Your task to perform on an android device: Do I have any events this weekend? Image 0: 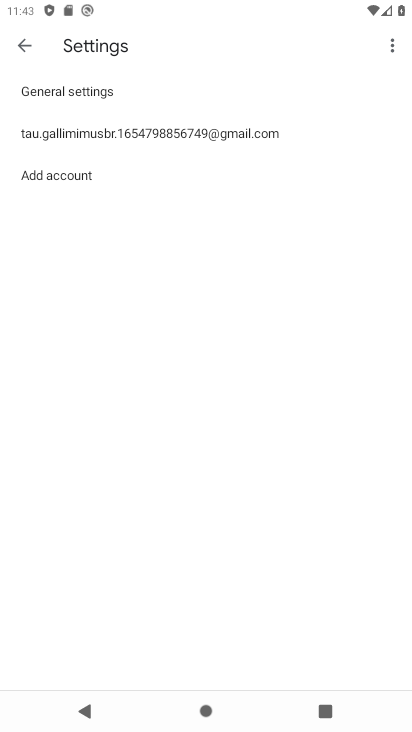
Step 0: press home button
Your task to perform on an android device: Do I have any events this weekend? Image 1: 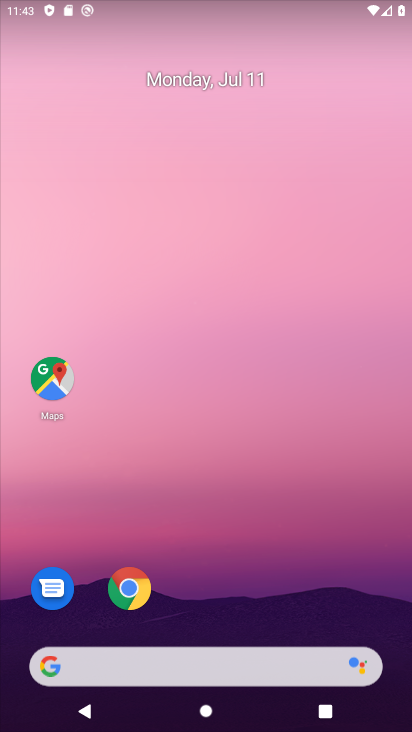
Step 1: drag from (235, 571) to (113, 104)
Your task to perform on an android device: Do I have any events this weekend? Image 2: 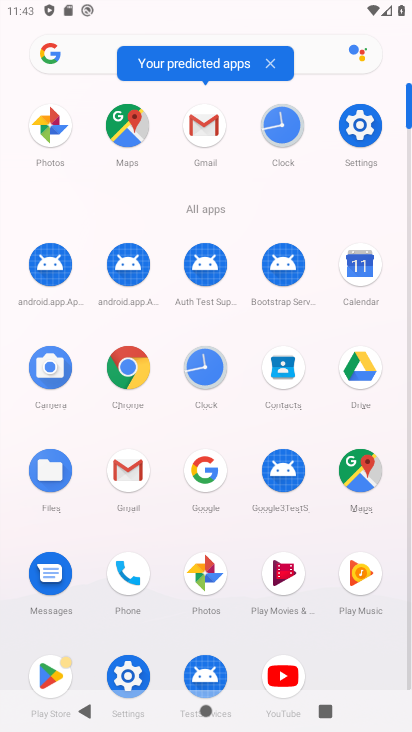
Step 2: click (356, 268)
Your task to perform on an android device: Do I have any events this weekend? Image 3: 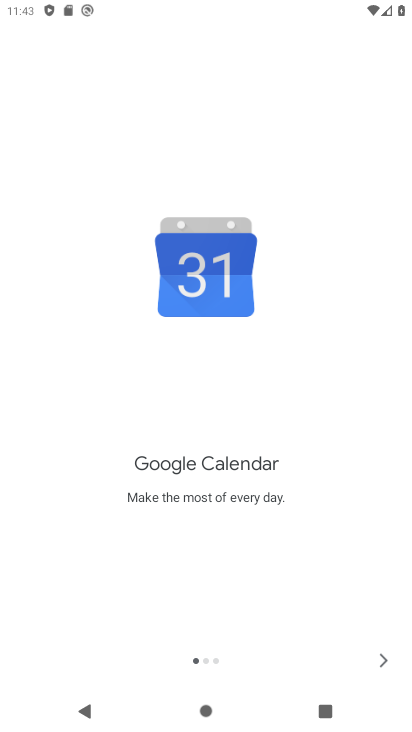
Step 3: click (399, 664)
Your task to perform on an android device: Do I have any events this weekend? Image 4: 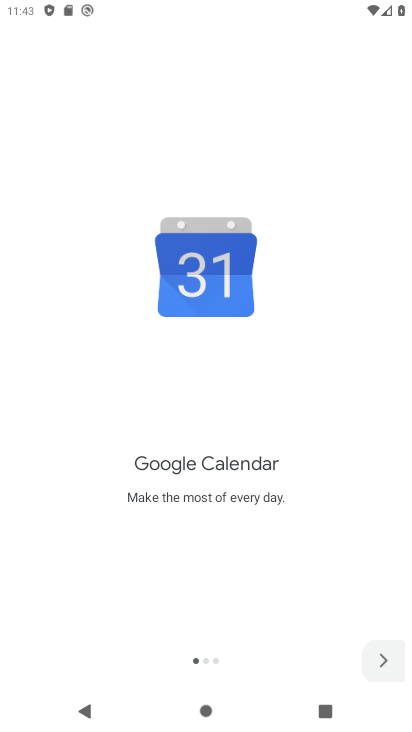
Step 4: click (399, 664)
Your task to perform on an android device: Do I have any events this weekend? Image 5: 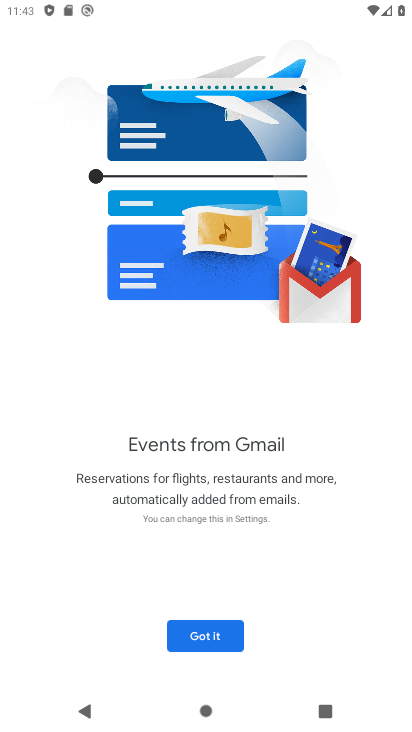
Step 5: click (197, 631)
Your task to perform on an android device: Do I have any events this weekend? Image 6: 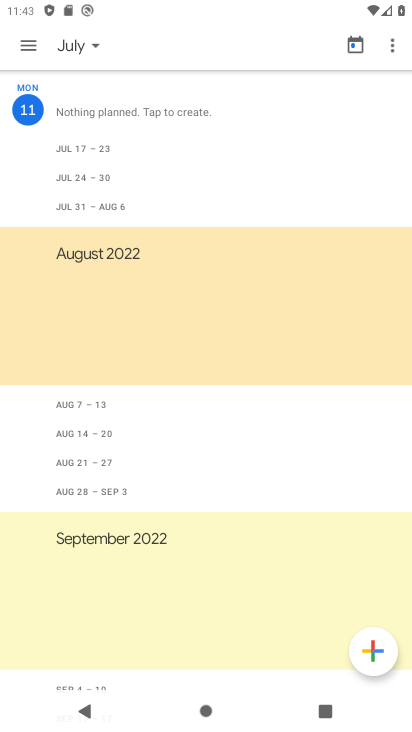
Step 6: click (75, 48)
Your task to perform on an android device: Do I have any events this weekend? Image 7: 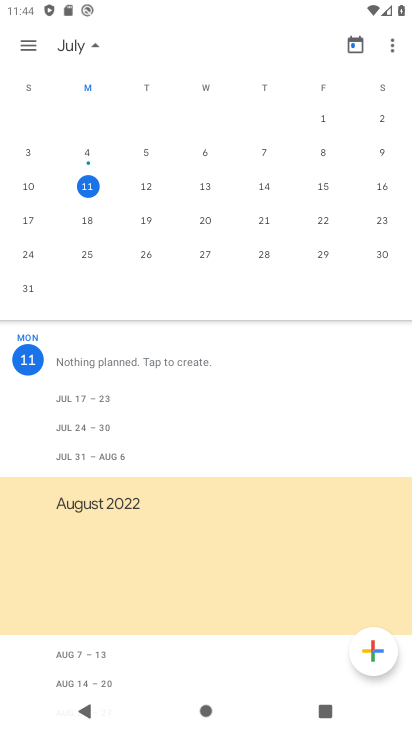
Step 7: click (383, 185)
Your task to perform on an android device: Do I have any events this weekend? Image 8: 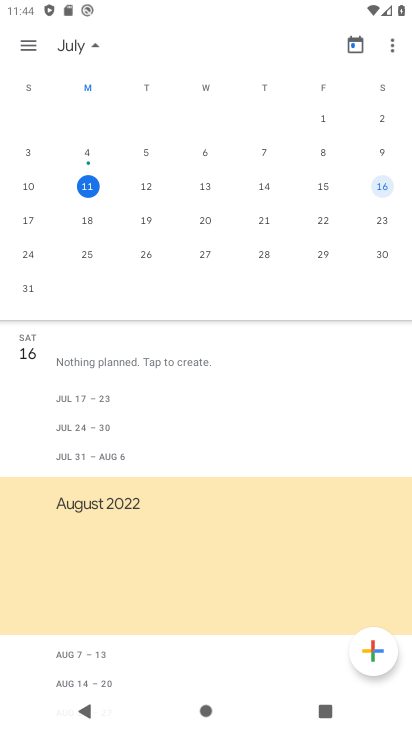
Step 8: click (30, 50)
Your task to perform on an android device: Do I have any events this weekend? Image 9: 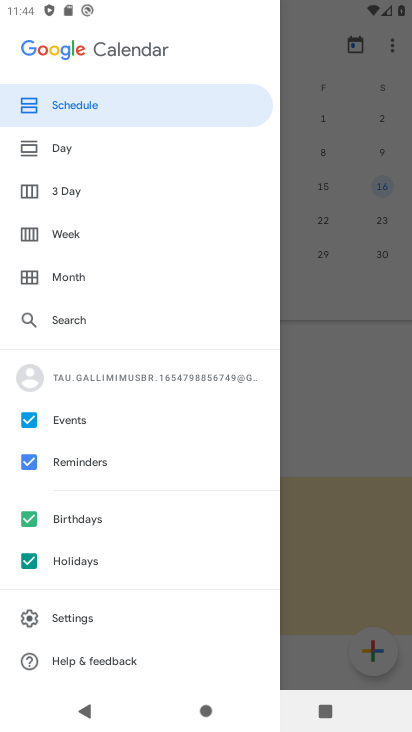
Step 9: click (69, 187)
Your task to perform on an android device: Do I have any events this weekend? Image 10: 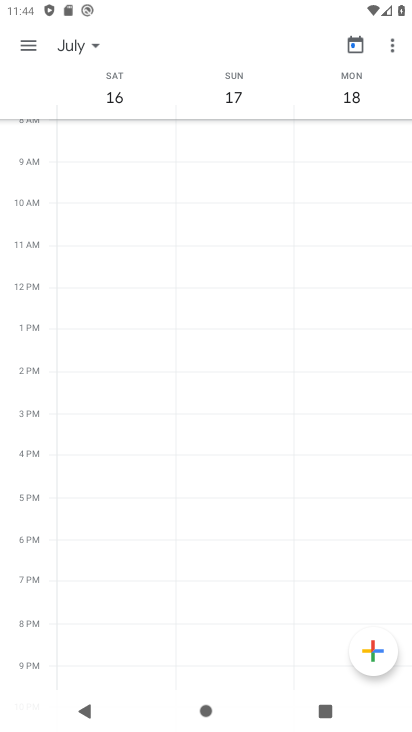
Step 10: task complete